Your task to perform on an android device: turn pop-ups off in chrome Image 0: 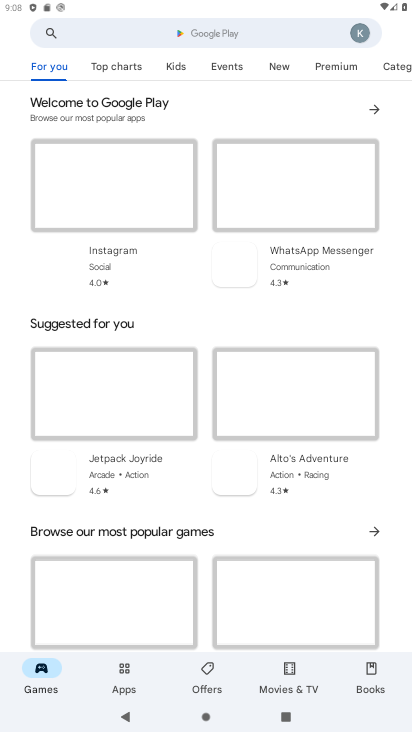
Step 0: press home button
Your task to perform on an android device: turn pop-ups off in chrome Image 1: 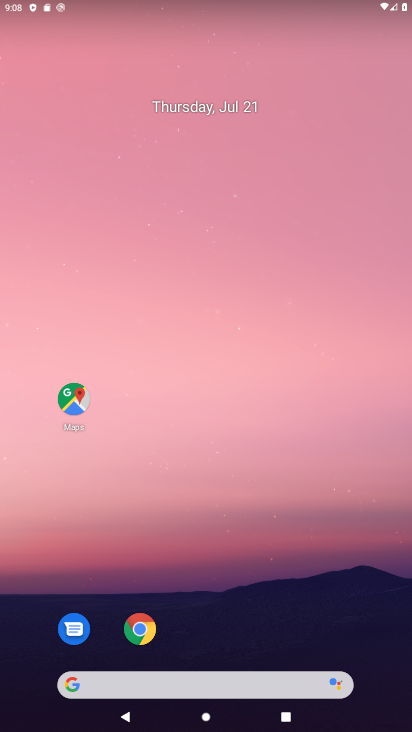
Step 1: click (157, 630)
Your task to perform on an android device: turn pop-ups off in chrome Image 2: 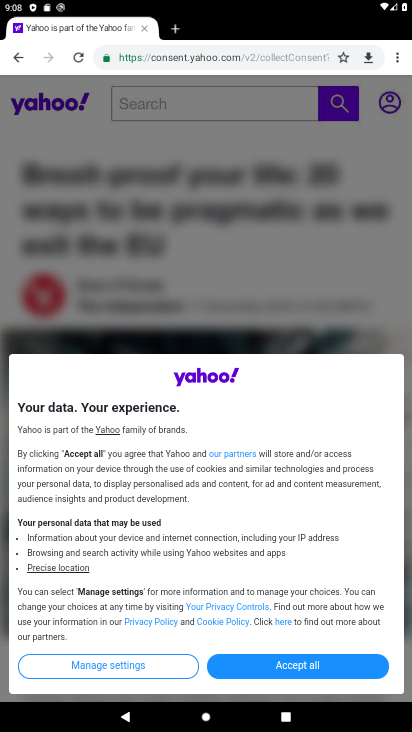
Step 2: click (401, 67)
Your task to perform on an android device: turn pop-ups off in chrome Image 3: 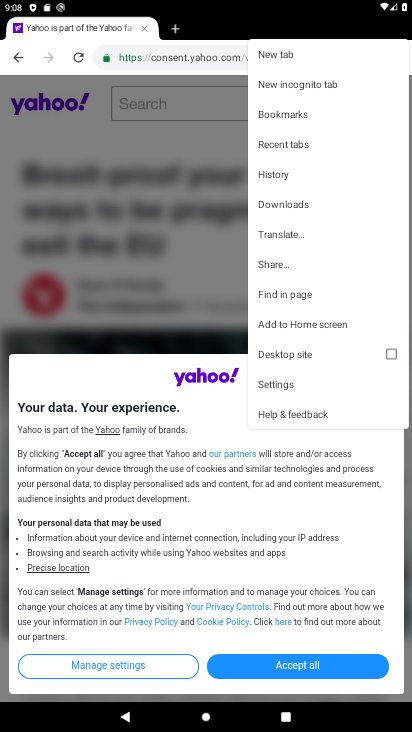
Step 3: click (287, 386)
Your task to perform on an android device: turn pop-ups off in chrome Image 4: 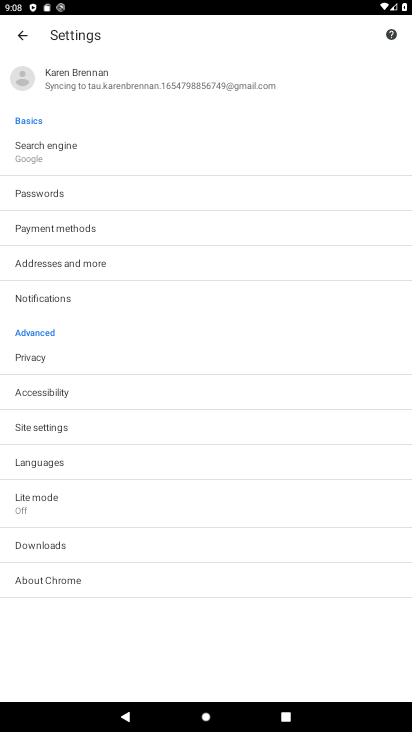
Step 4: click (131, 427)
Your task to perform on an android device: turn pop-ups off in chrome Image 5: 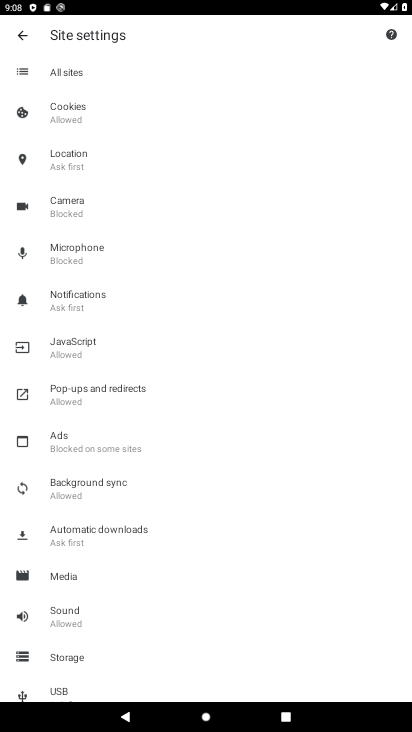
Step 5: click (274, 391)
Your task to perform on an android device: turn pop-ups off in chrome Image 6: 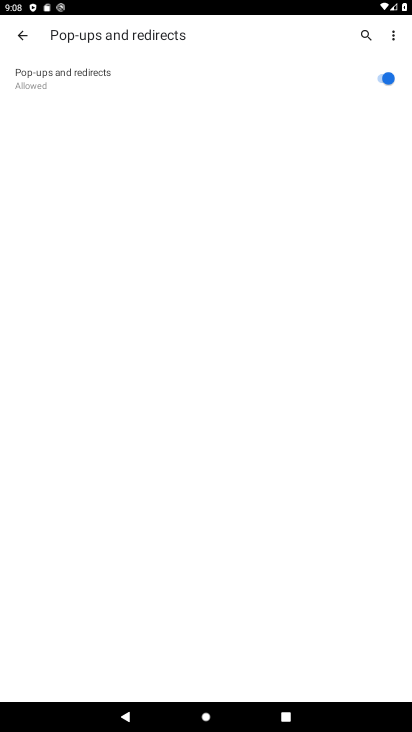
Step 6: click (373, 80)
Your task to perform on an android device: turn pop-ups off in chrome Image 7: 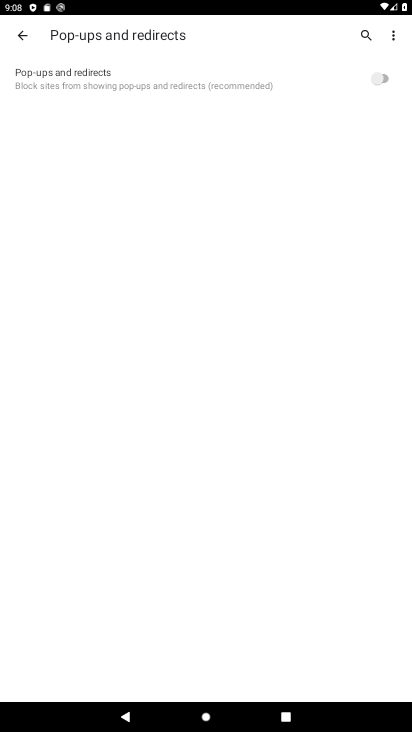
Step 7: task complete